Your task to perform on an android device: Go to CNN.com Image 0: 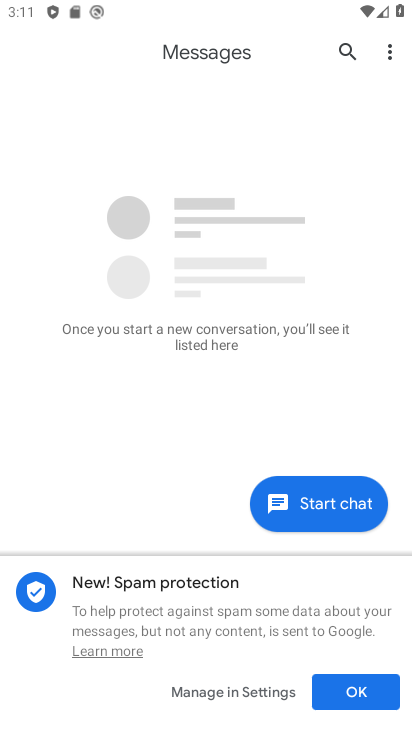
Step 0: press home button
Your task to perform on an android device: Go to CNN.com Image 1: 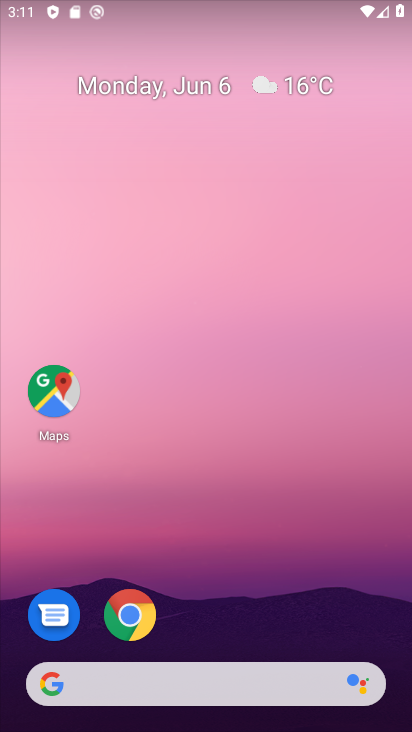
Step 1: click (129, 617)
Your task to perform on an android device: Go to CNN.com Image 2: 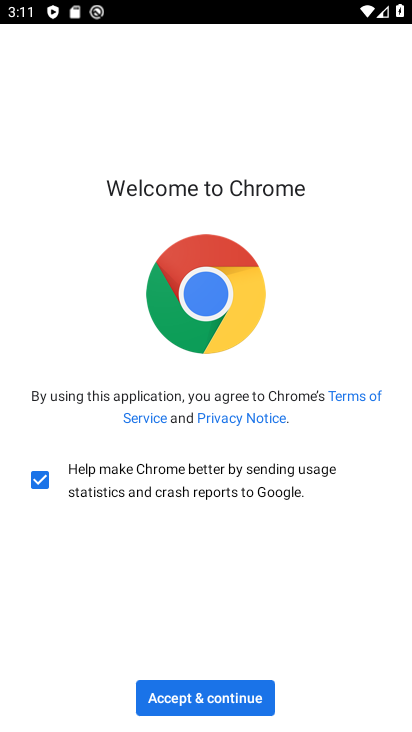
Step 2: click (206, 705)
Your task to perform on an android device: Go to CNN.com Image 3: 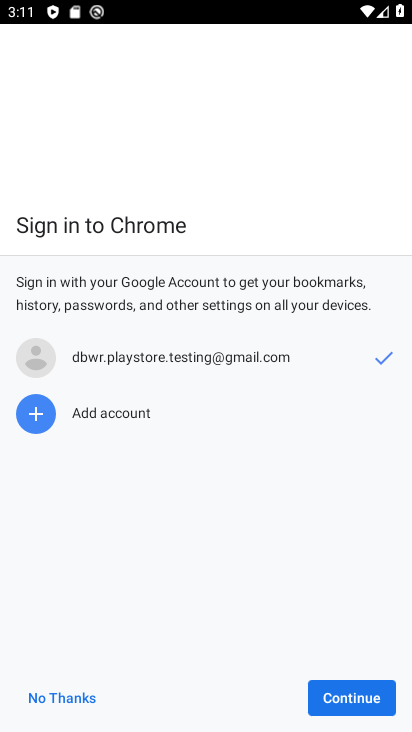
Step 3: click (341, 697)
Your task to perform on an android device: Go to CNN.com Image 4: 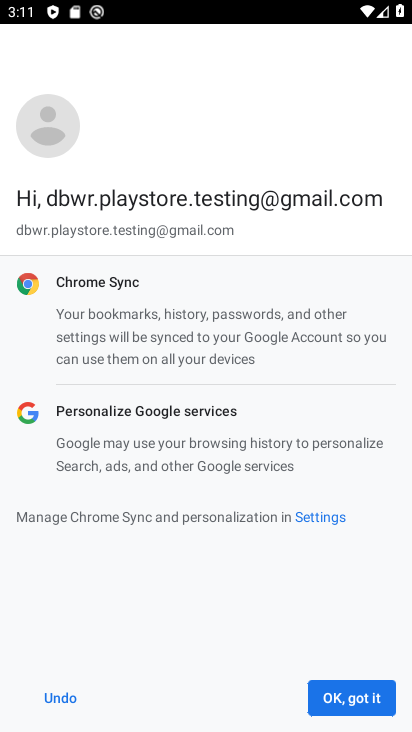
Step 4: click (361, 705)
Your task to perform on an android device: Go to CNN.com Image 5: 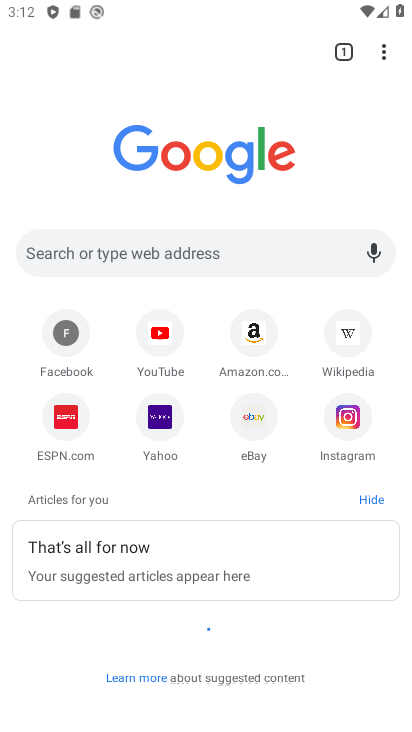
Step 5: click (133, 245)
Your task to perform on an android device: Go to CNN.com Image 6: 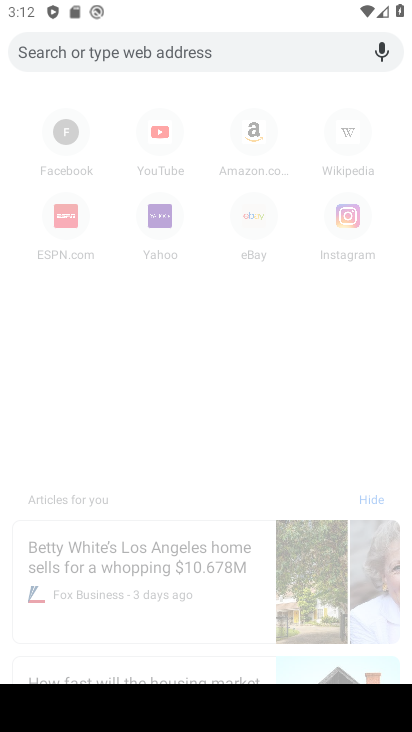
Step 6: type "cnn.com"
Your task to perform on an android device: Go to CNN.com Image 7: 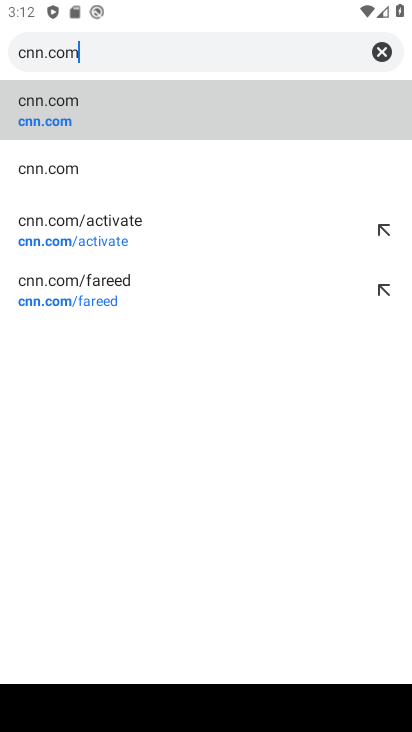
Step 7: click (78, 116)
Your task to perform on an android device: Go to CNN.com Image 8: 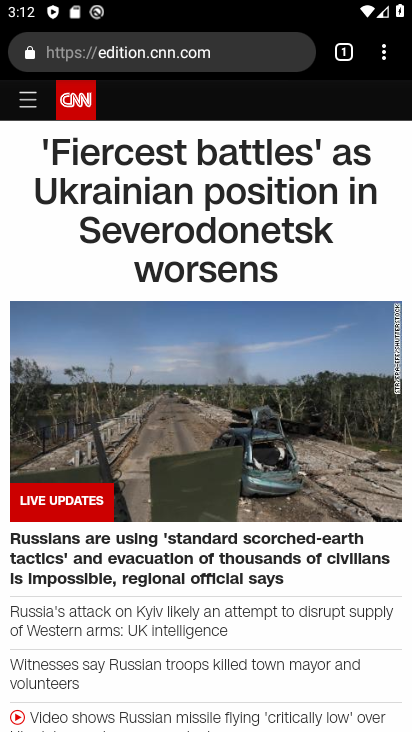
Step 8: task complete